Your task to perform on an android device: Go to notification settings Image 0: 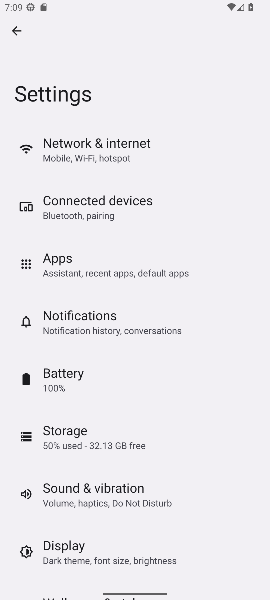
Step 0: click (159, 328)
Your task to perform on an android device: Go to notification settings Image 1: 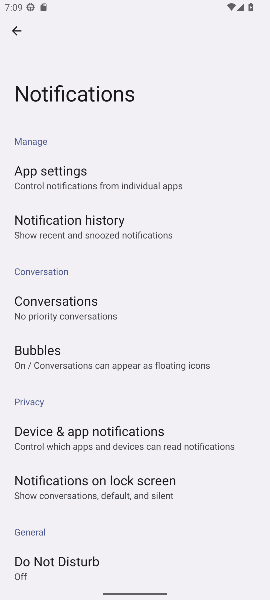
Step 1: task complete